Your task to perform on an android device: install app "Etsy: Buy & Sell Unique Items" Image 0: 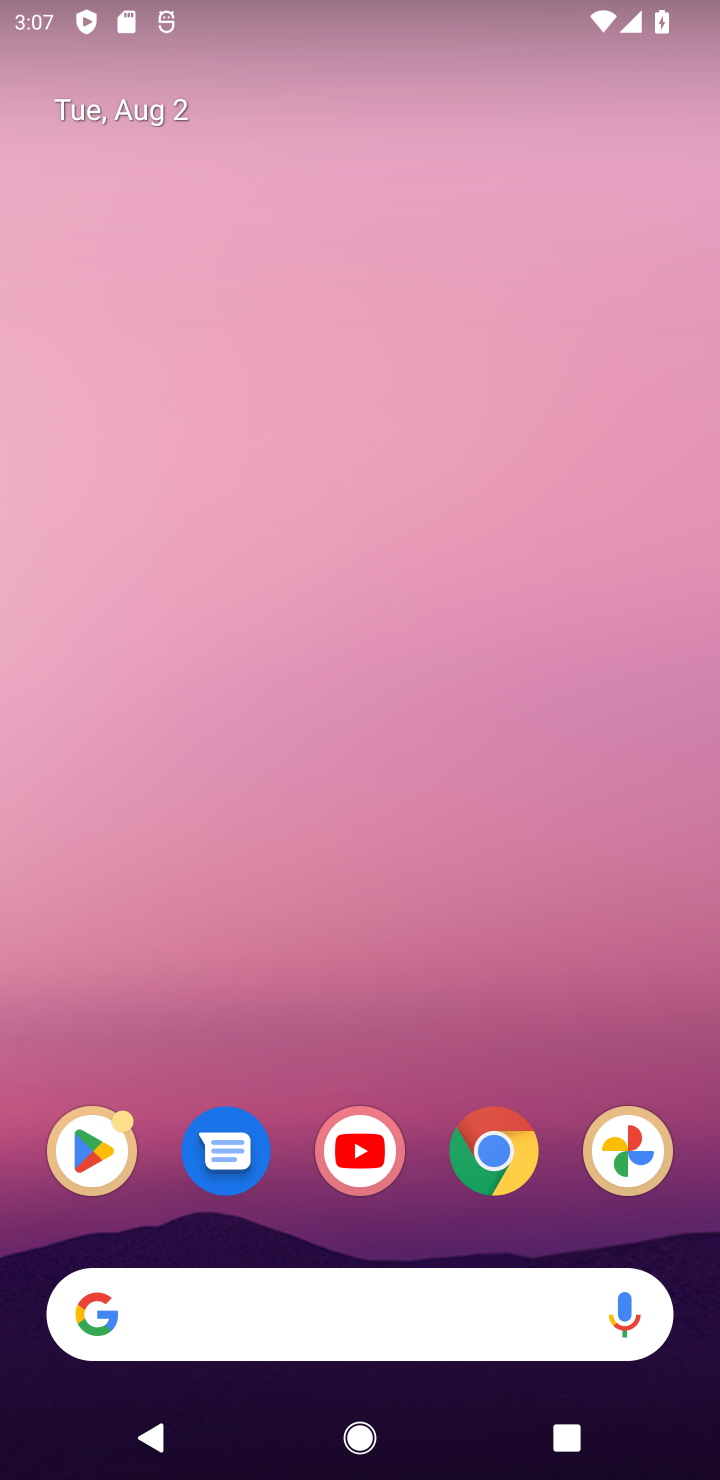
Step 0: drag from (411, 1292) to (316, 171)
Your task to perform on an android device: install app "Etsy: Buy & Sell Unique Items" Image 1: 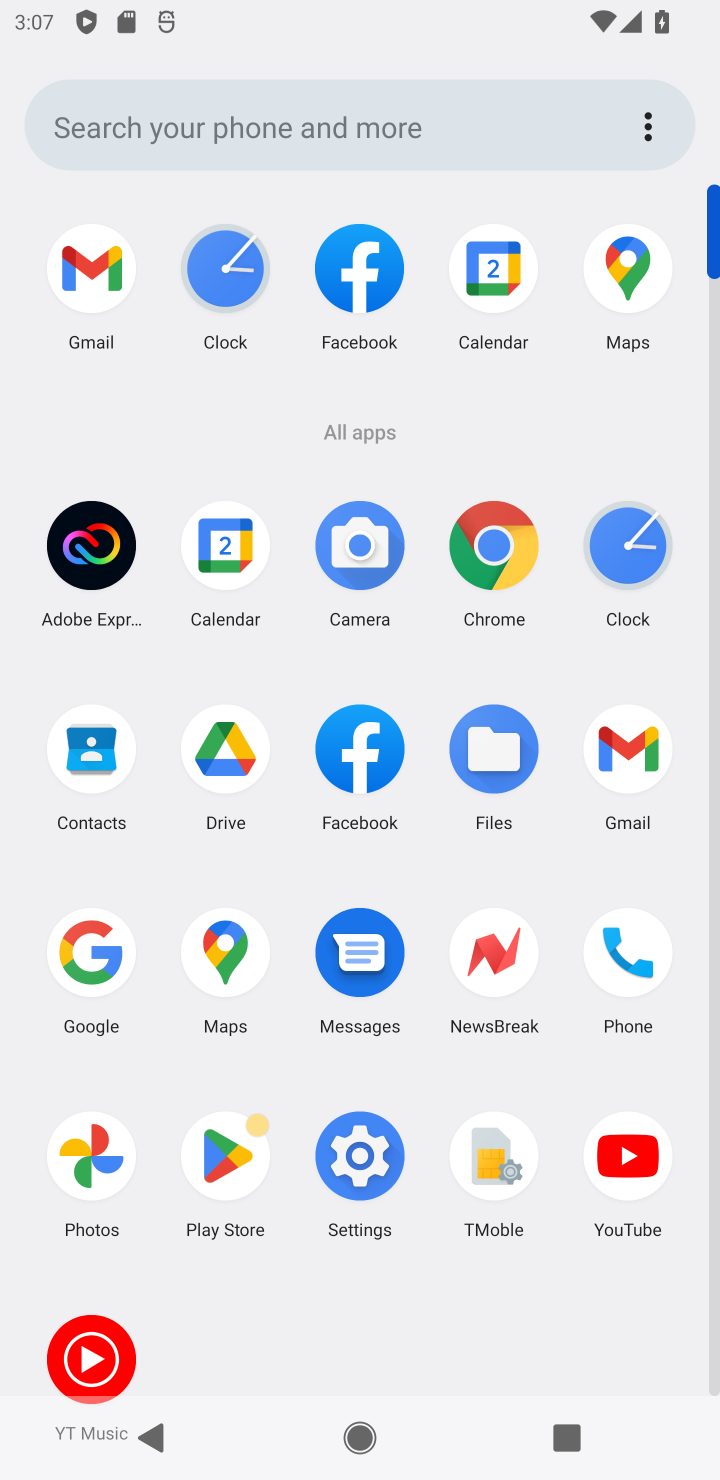
Step 1: click (237, 1144)
Your task to perform on an android device: install app "Etsy: Buy & Sell Unique Items" Image 2: 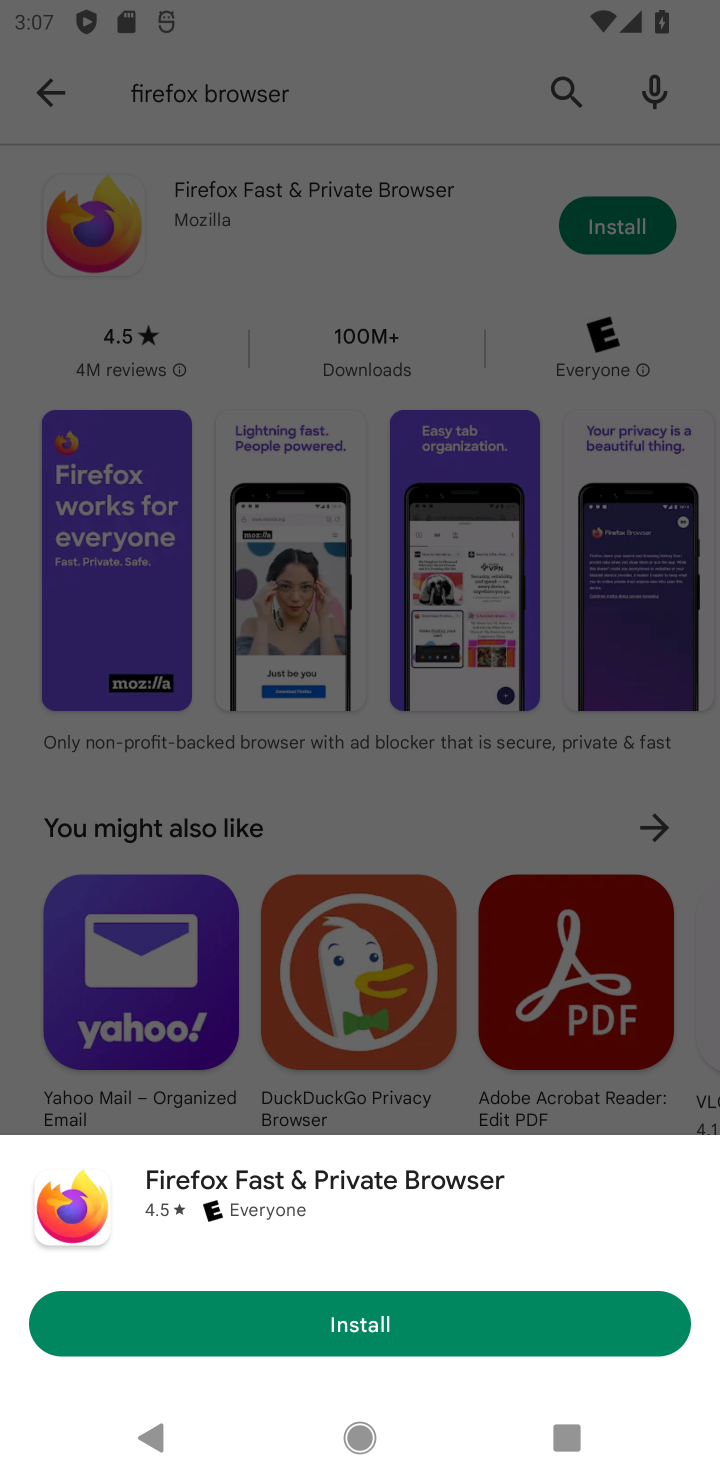
Step 2: click (344, 1321)
Your task to perform on an android device: install app "Etsy: Buy & Sell Unique Items" Image 3: 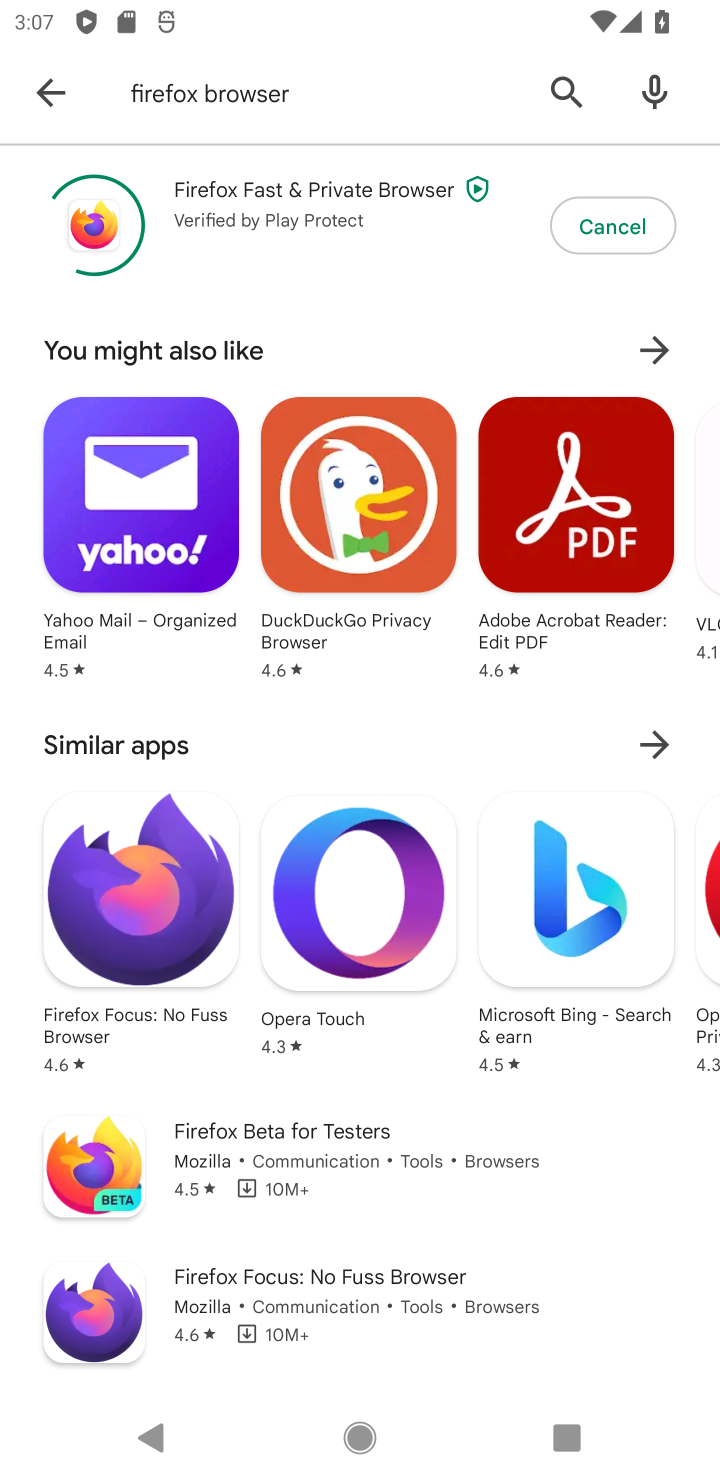
Step 3: click (593, 234)
Your task to perform on an android device: install app "Etsy: Buy & Sell Unique Items" Image 4: 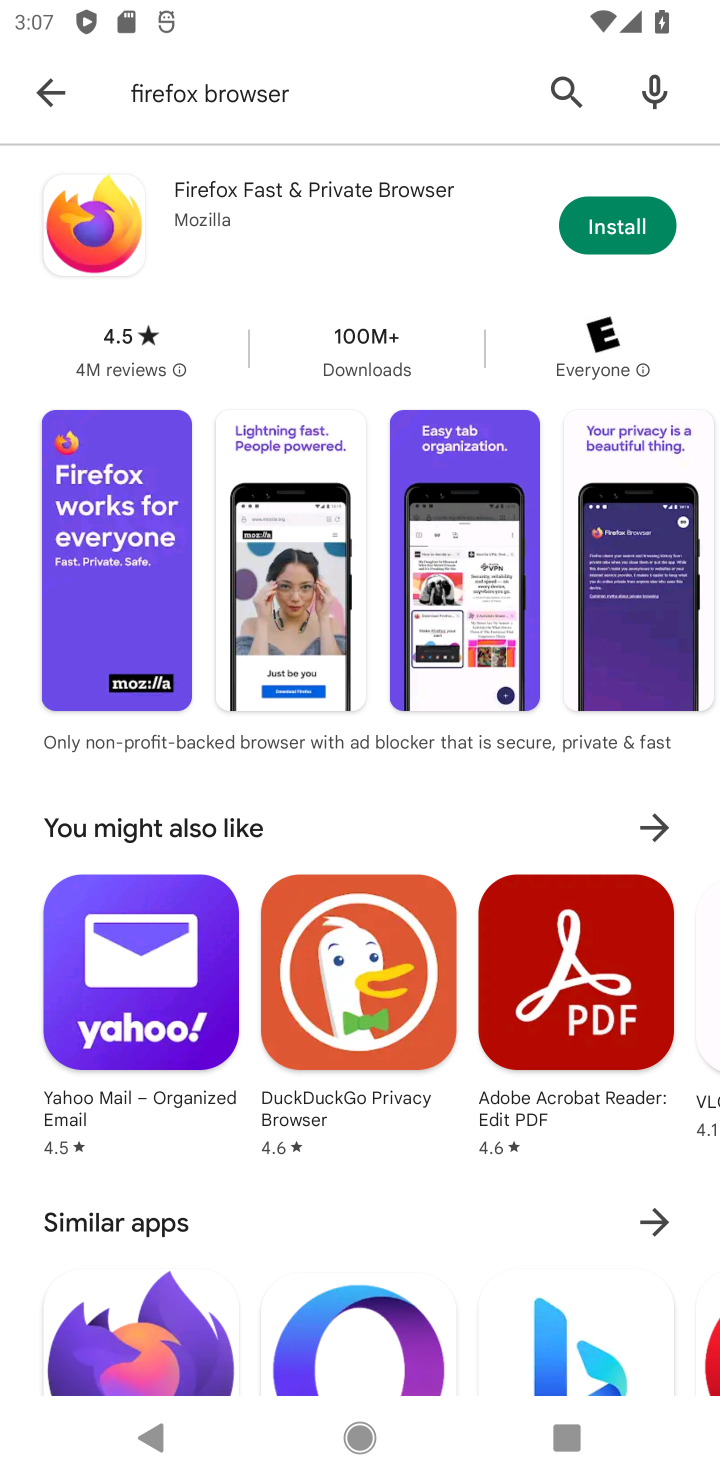
Step 4: click (558, 86)
Your task to perform on an android device: install app "Etsy: Buy & Sell Unique Items" Image 5: 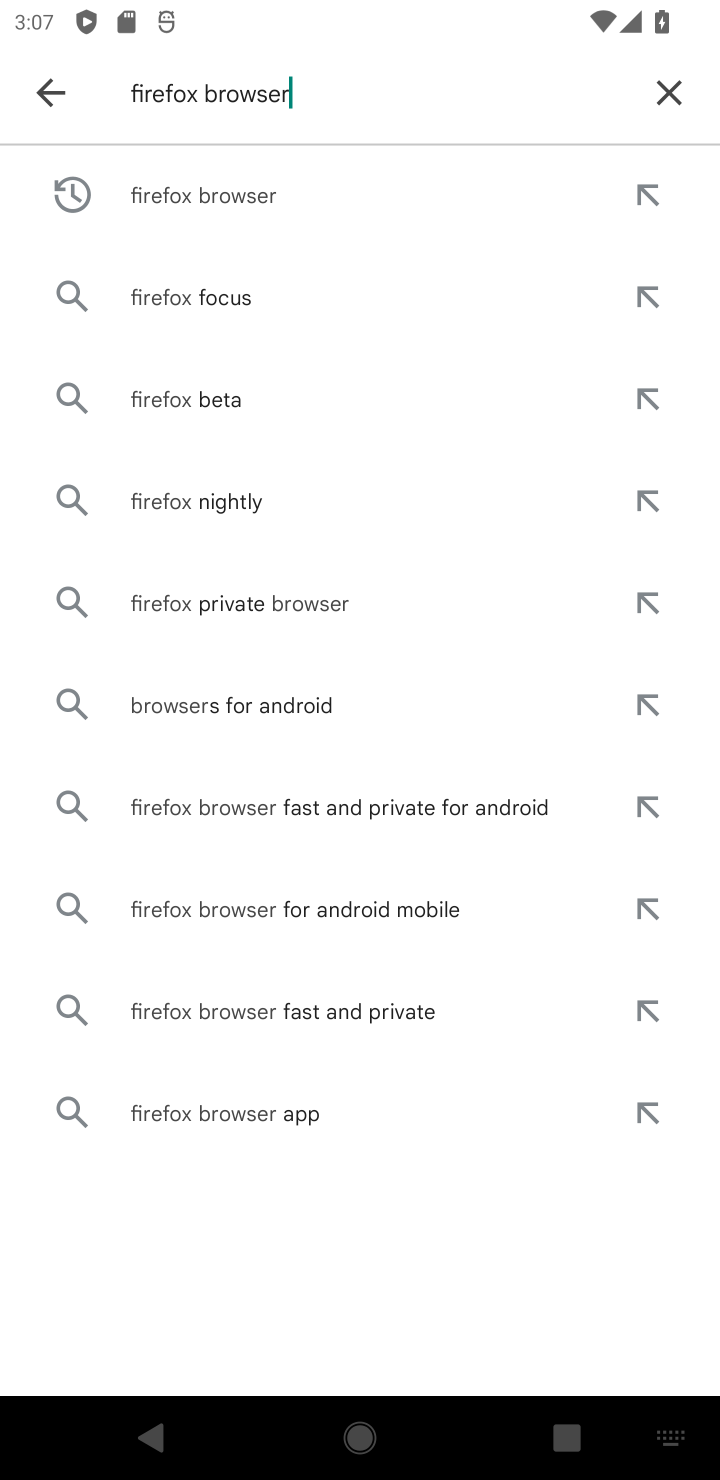
Step 5: click (668, 89)
Your task to perform on an android device: install app "Etsy: Buy & Sell Unique Items" Image 6: 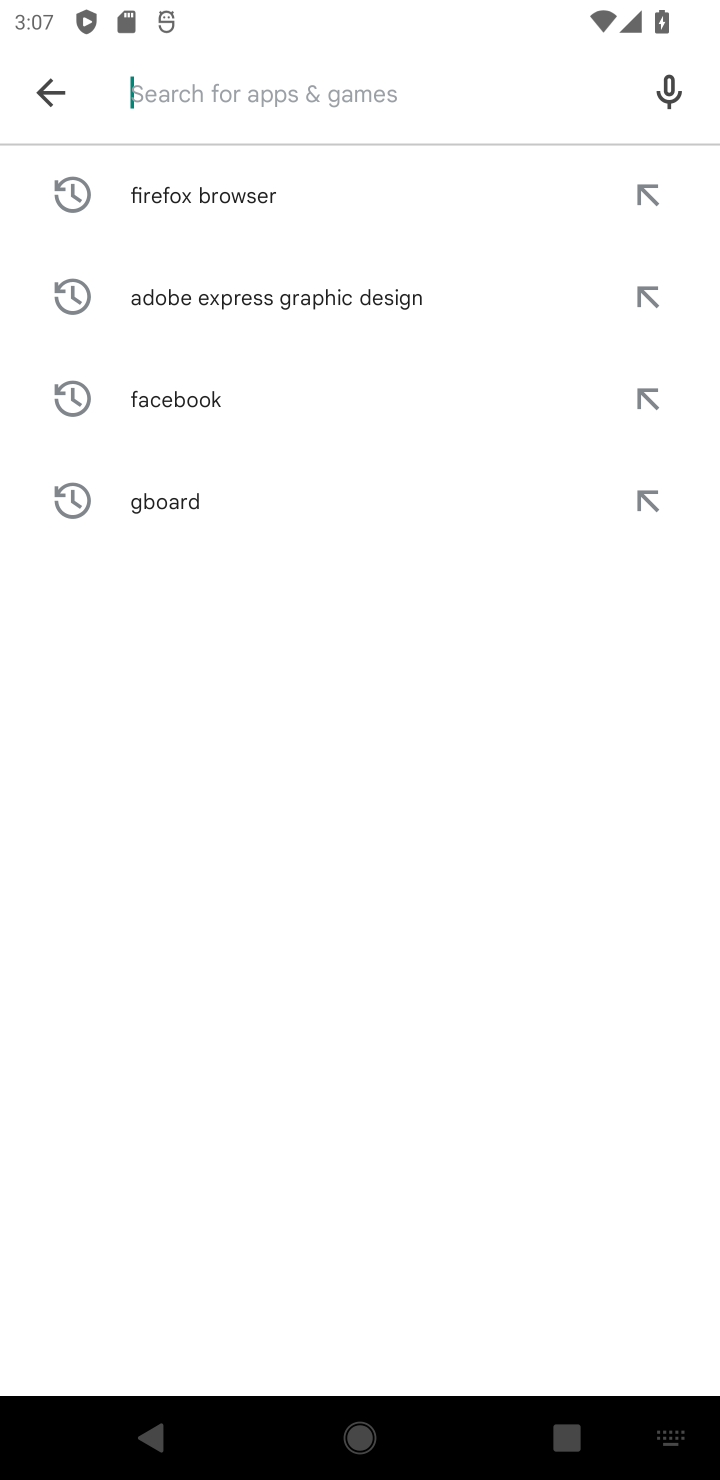
Step 6: type "Etsy: Buy & Sell Unique Items"
Your task to perform on an android device: install app "Etsy: Buy & Sell Unique Items" Image 7: 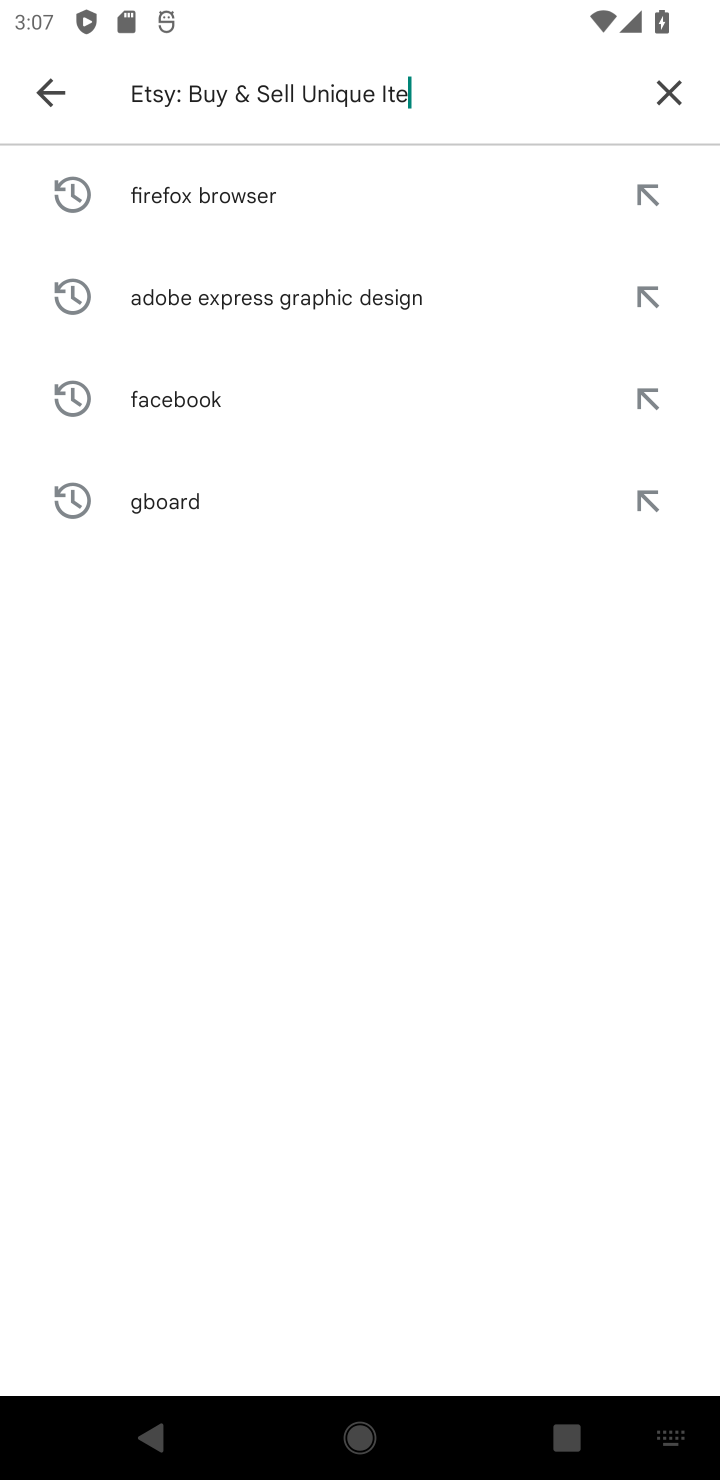
Step 7: type ""
Your task to perform on an android device: install app "Etsy: Buy & Sell Unique Items" Image 8: 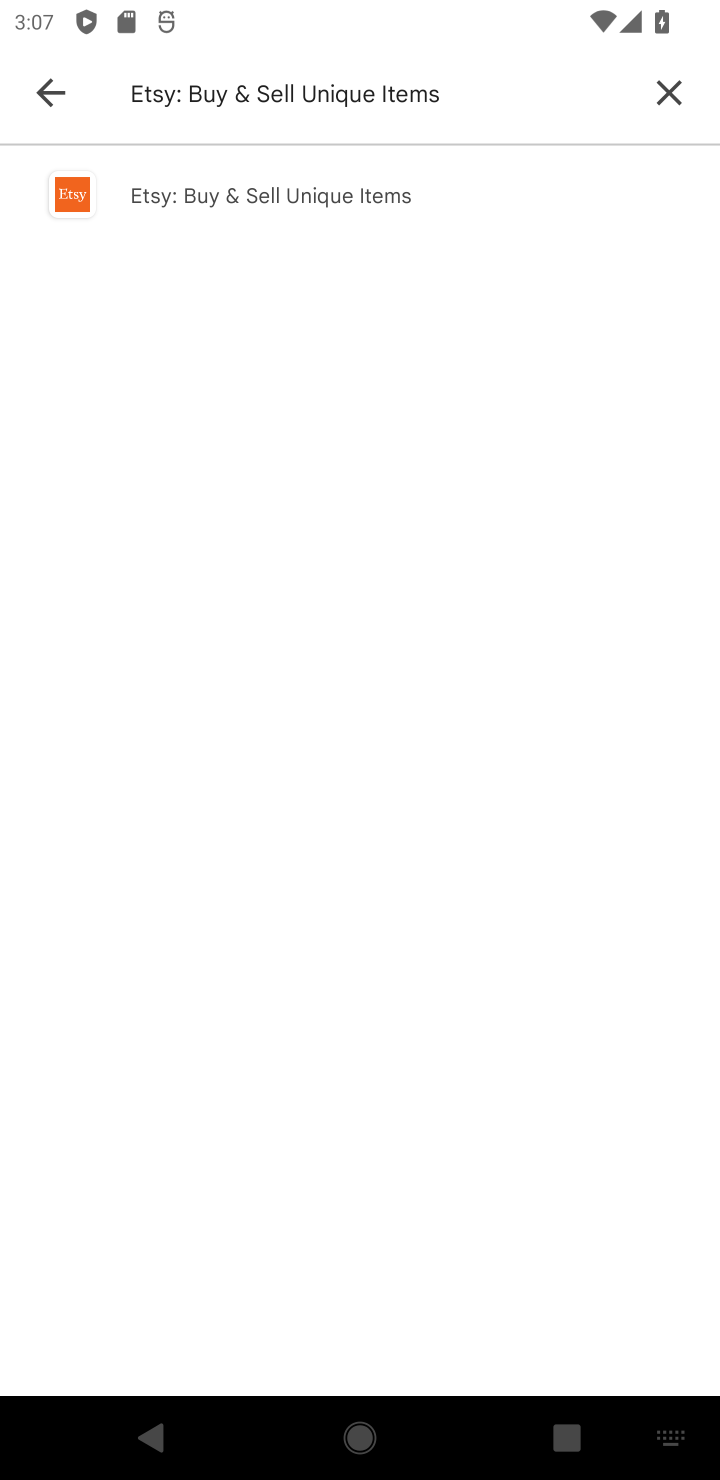
Step 8: click (215, 197)
Your task to perform on an android device: install app "Etsy: Buy & Sell Unique Items" Image 9: 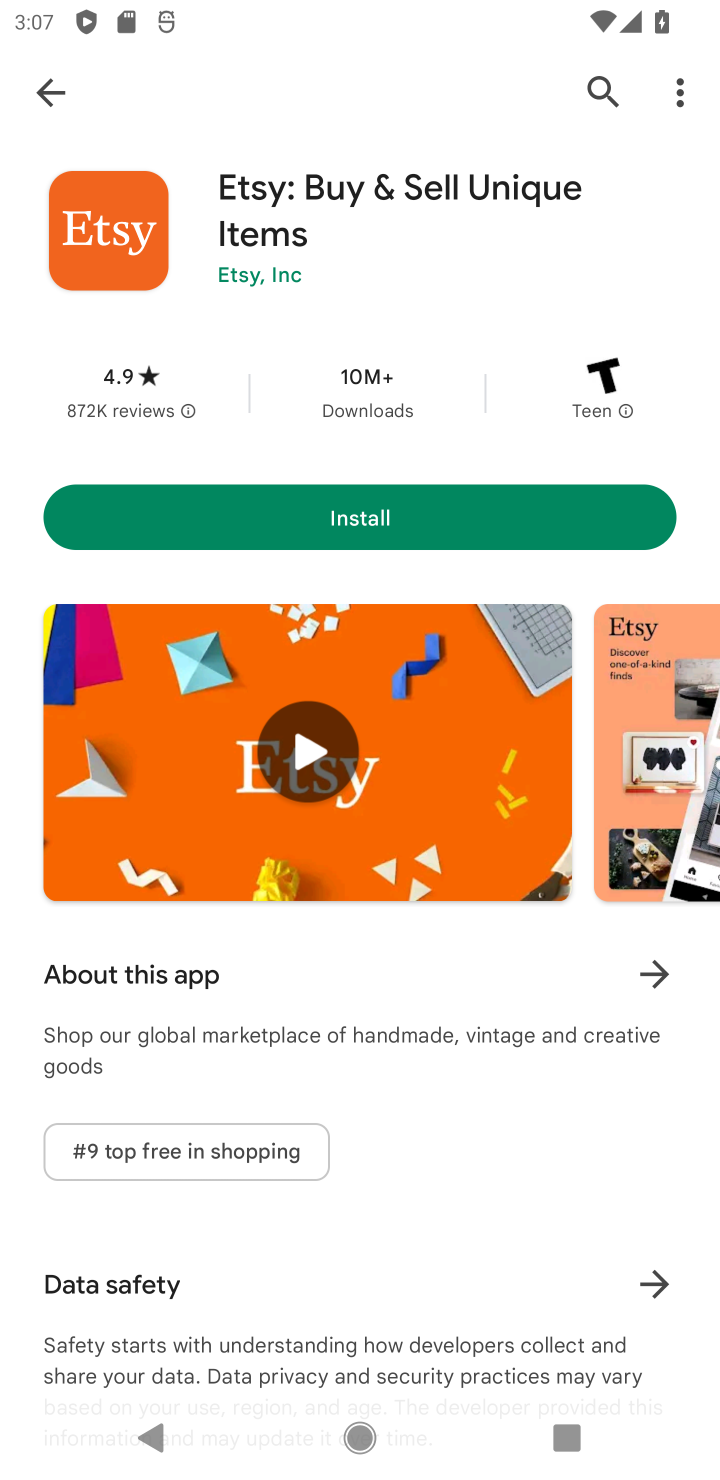
Step 9: click (407, 522)
Your task to perform on an android device: install app "Etsy: Buy & Sell Unique Items" Image 10: 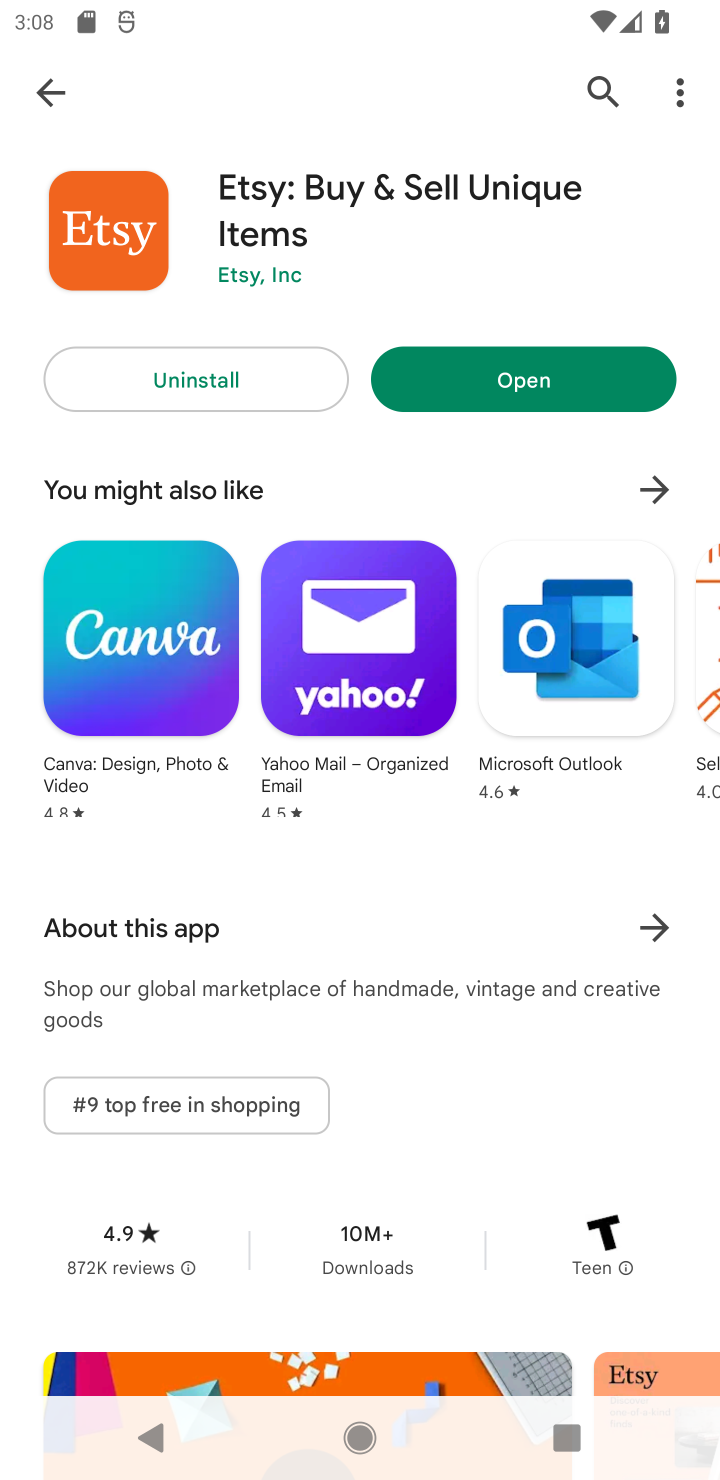
Step 10: task complete